Your task to perform on an android device: toggle wifi Image 0: 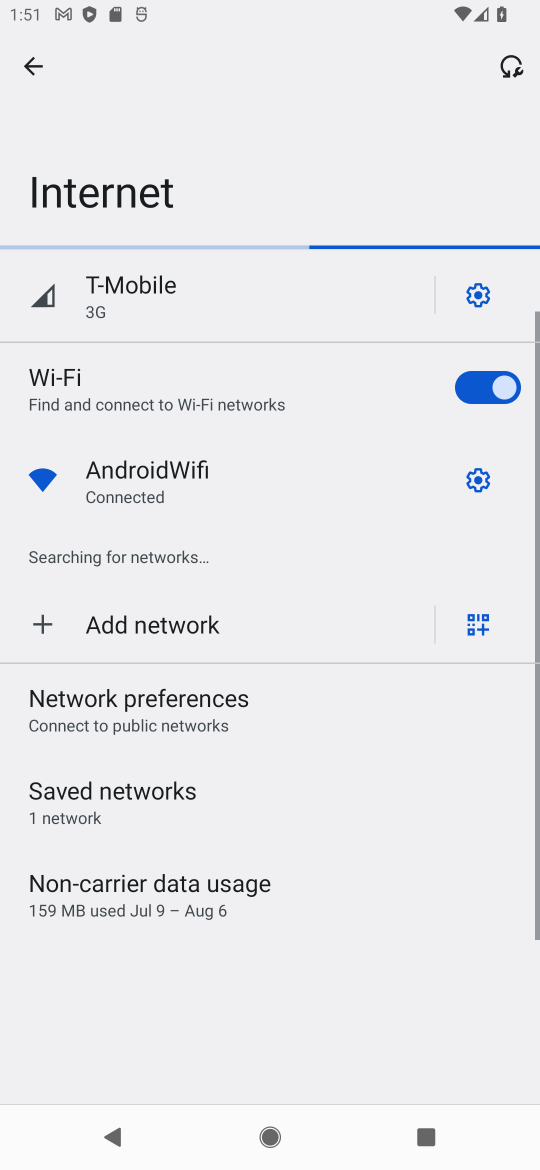
Step 0: click (153, 467)
Your task to perform on an android device: toggle wifi Image 1: 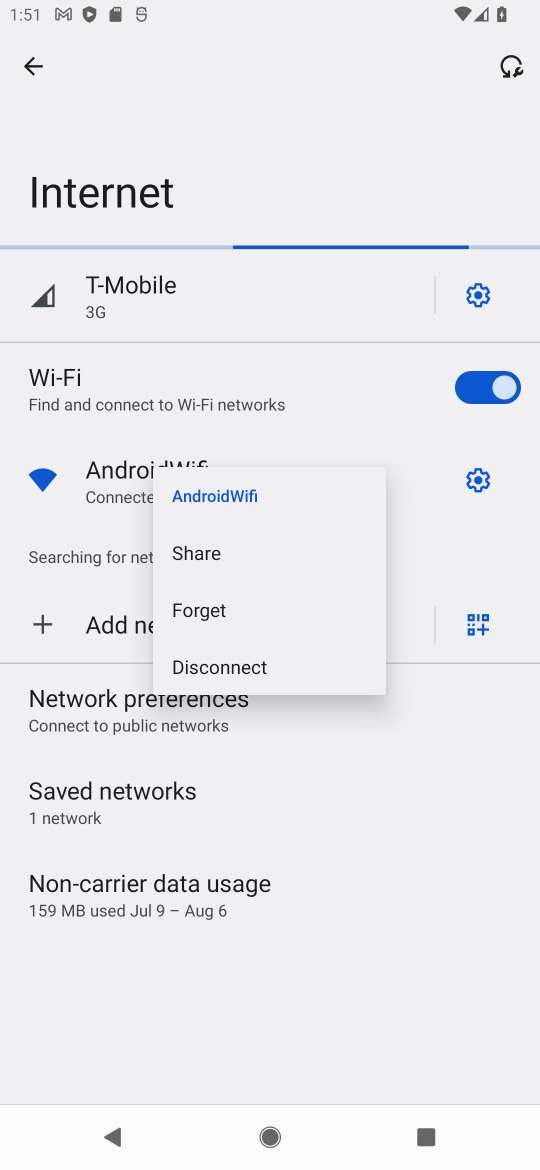
Step 1: click (207, 657)
Your task to perform on an android device: toggle wifi Image 2: 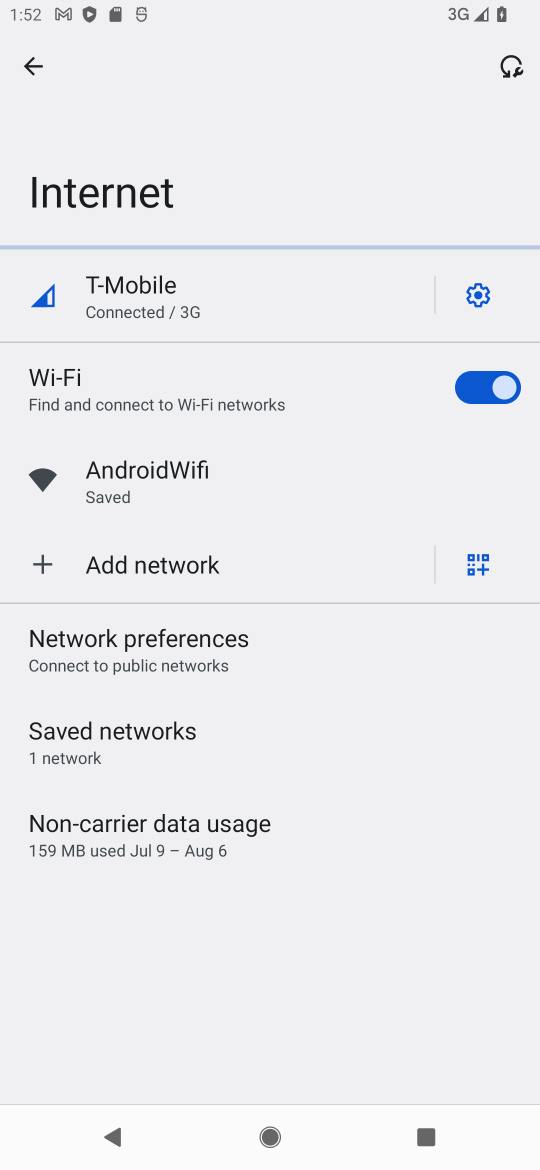
Step 2: click (470, 397)
Your task to perform on an android device: toggle wifi Image 3: 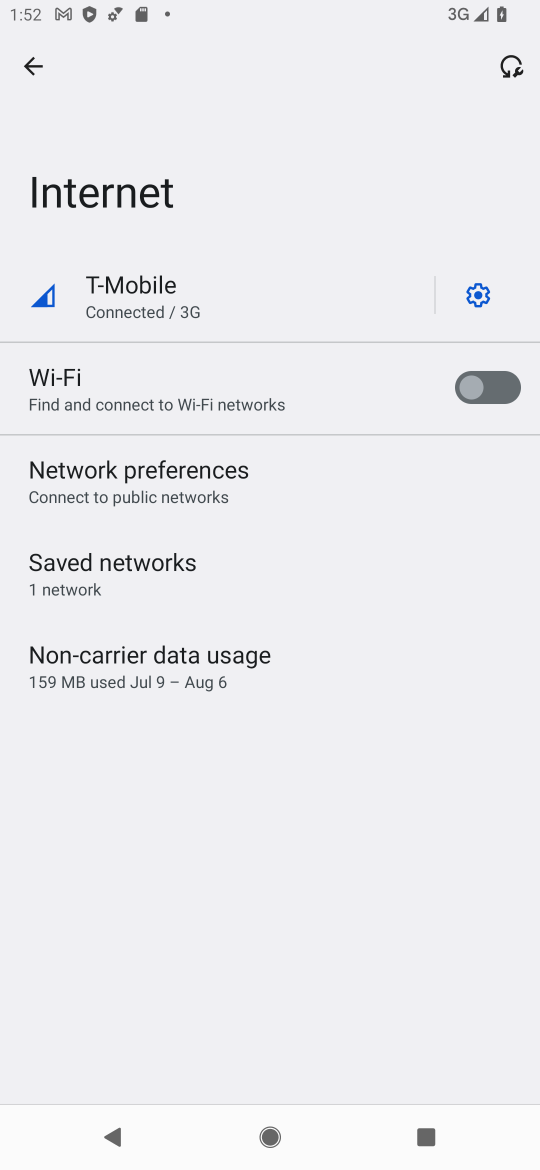
Step 3: task complete